Your task to perform on an android device: turn on airplane mode Image 0: 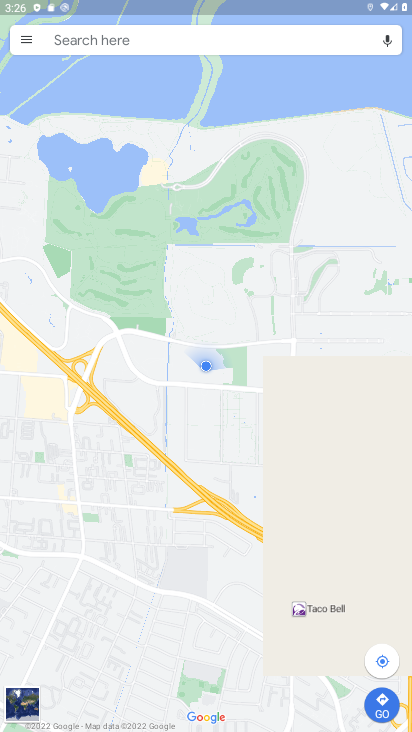
Step 0: press home button
Your task to perform on an android device: turn on airplane mode Image 1: 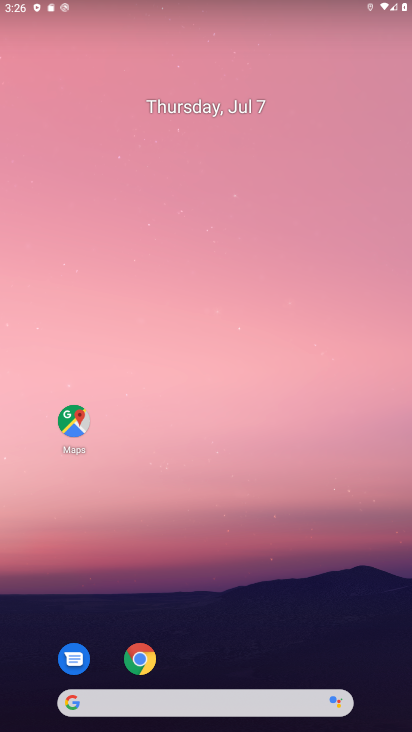
Step 1: drag from (240, 592) to (233, 35)
Your task to perform on an android device: turn on airplane mode Image 2: 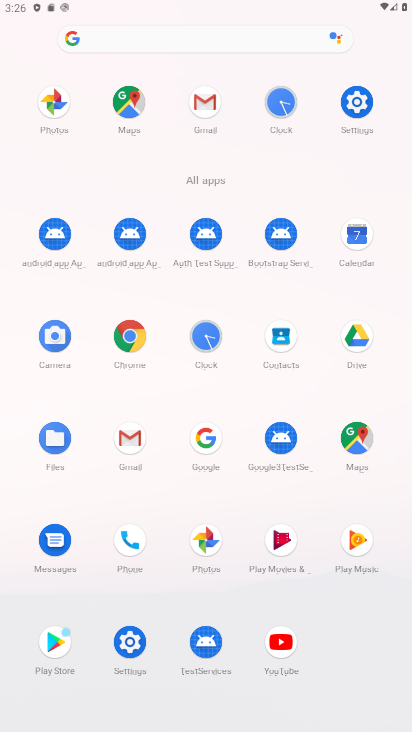
Step 2: click (140, 643)
Your task to perform on an android device: turn on airplane mode Image 3: 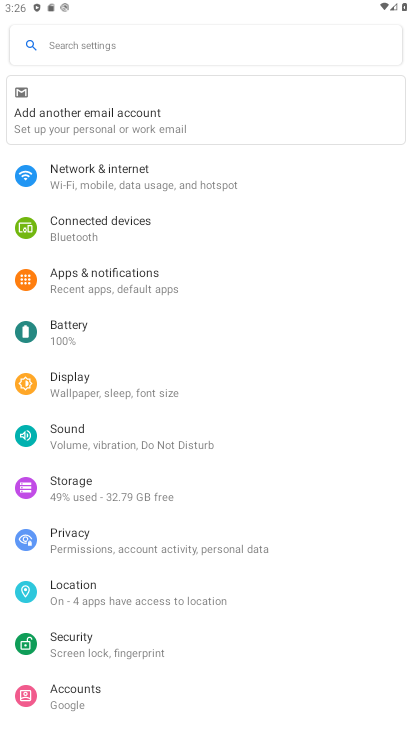
Step 3: click (135, 168)
Your task to perform on an android device: turn on airplane mode Image 4: 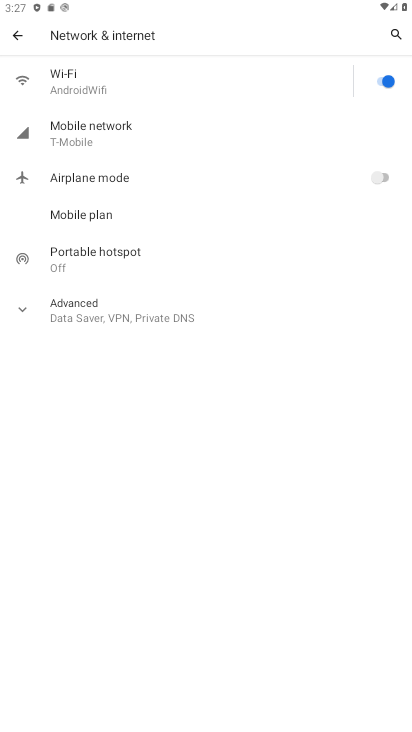
Step 4: click (390, 176)
Your task to perform on an android device: turn on airplane mode Image 5: 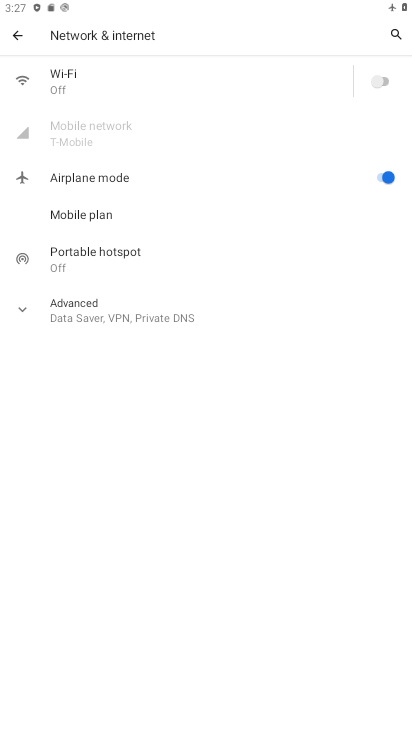
Step 5: task complete